Your task to perform on an android device: Go to Google Image 0: 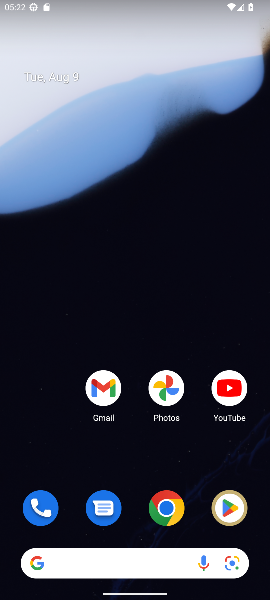
Step 0: drag from (141, 468) to (151, 8)
Your task to perform on an android device: Go to Google Image 1: 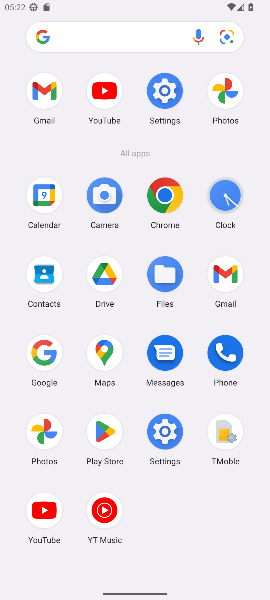
Step 1: click (31, 355)
Your task to perform on an android device: Go to Google Image 2: 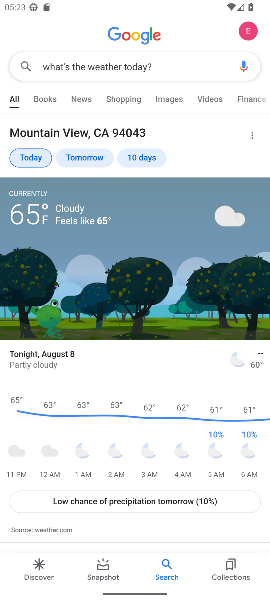
Step 2: task complete